Your task to perform on an android device: turn smart compose on in the gmail app Image 0: 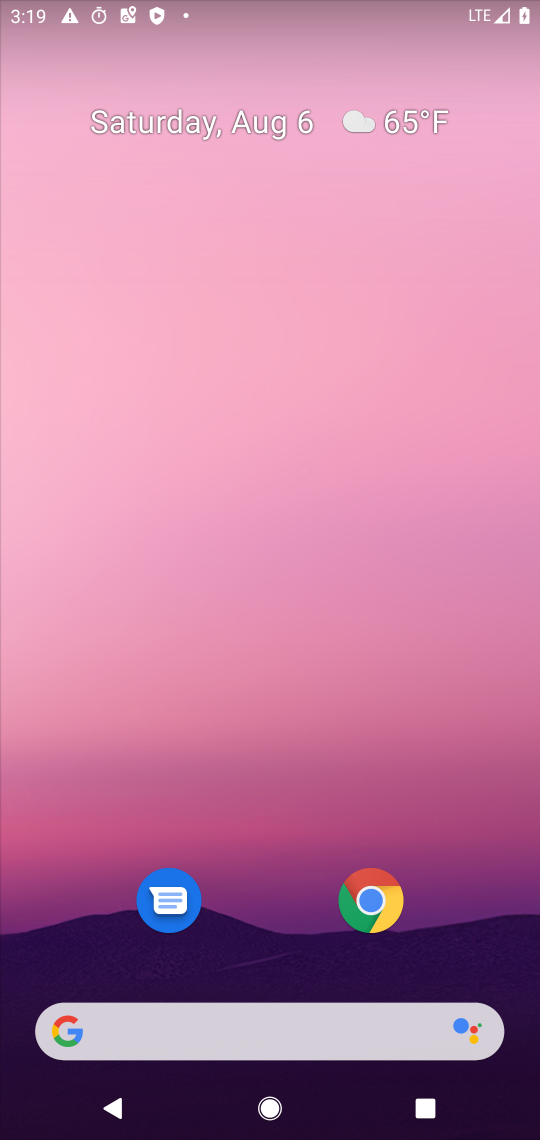
Step 0: press home button
Your task to perform on an android device: turn smart compose on in the gmail app Image 1: 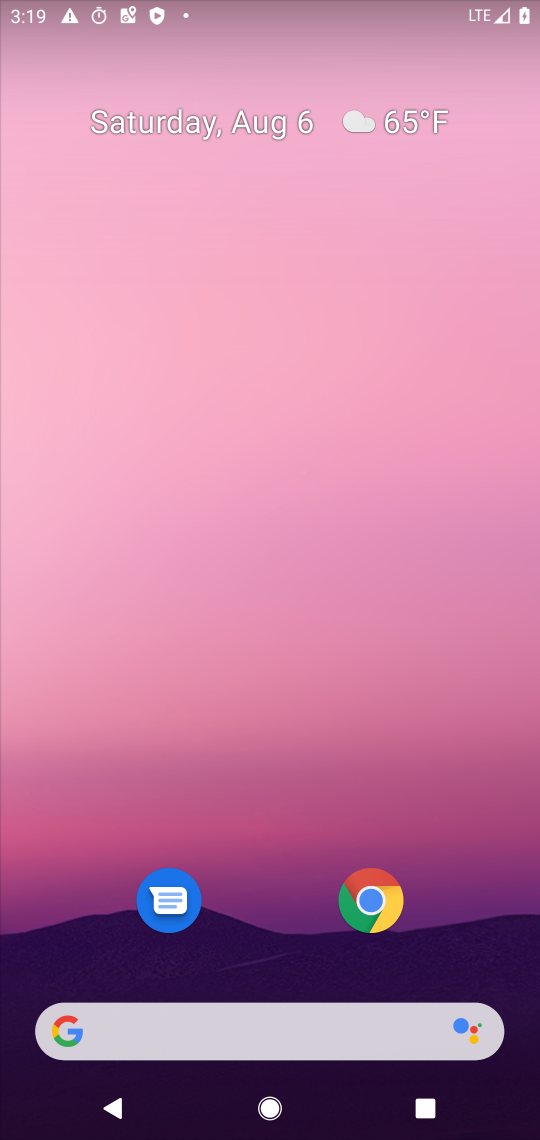
Step 1: press home button
Your task to perform on an android device: turn smart compose on in the gmail app Image 2: 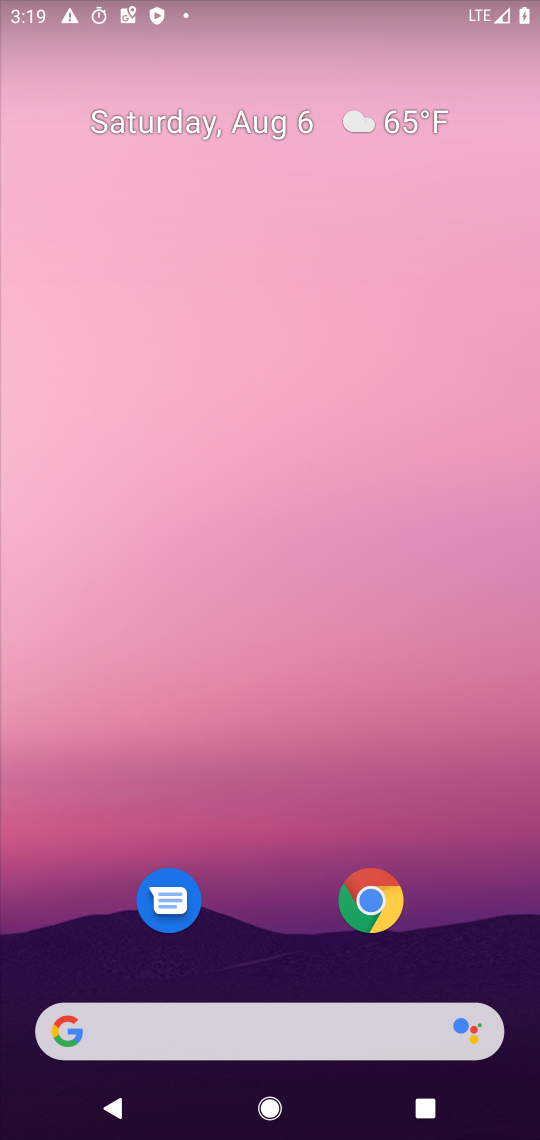
Step 2: drag from (236, 931) to (116, 54)
Your task to perform on an android device: turn smart compose on in the gmail app Image 3: 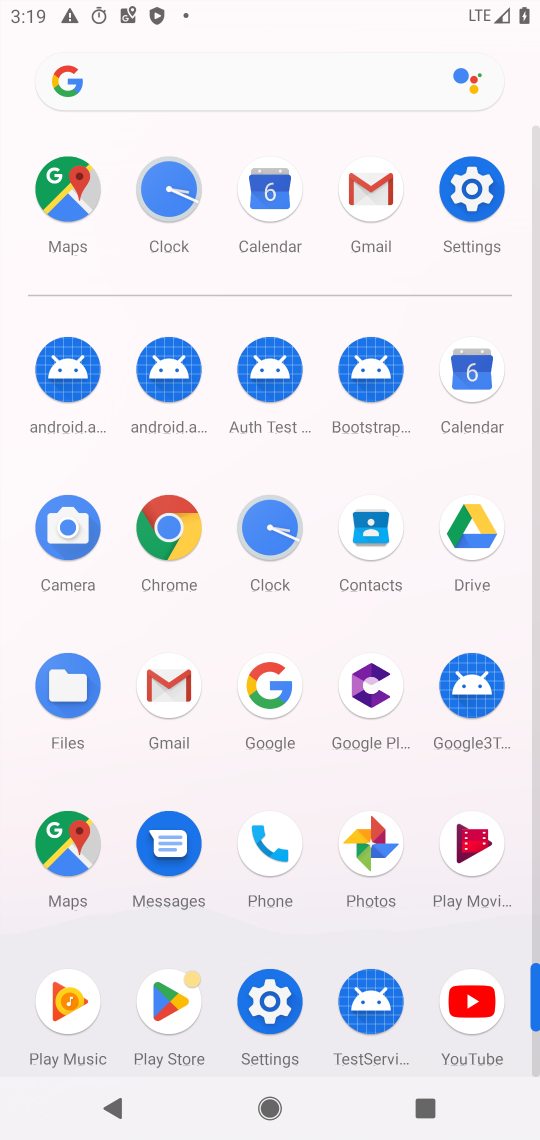
Step 3: click (382, 191)
Your task to perform on an android device: turn smart compose on in the gmail app Image 4: 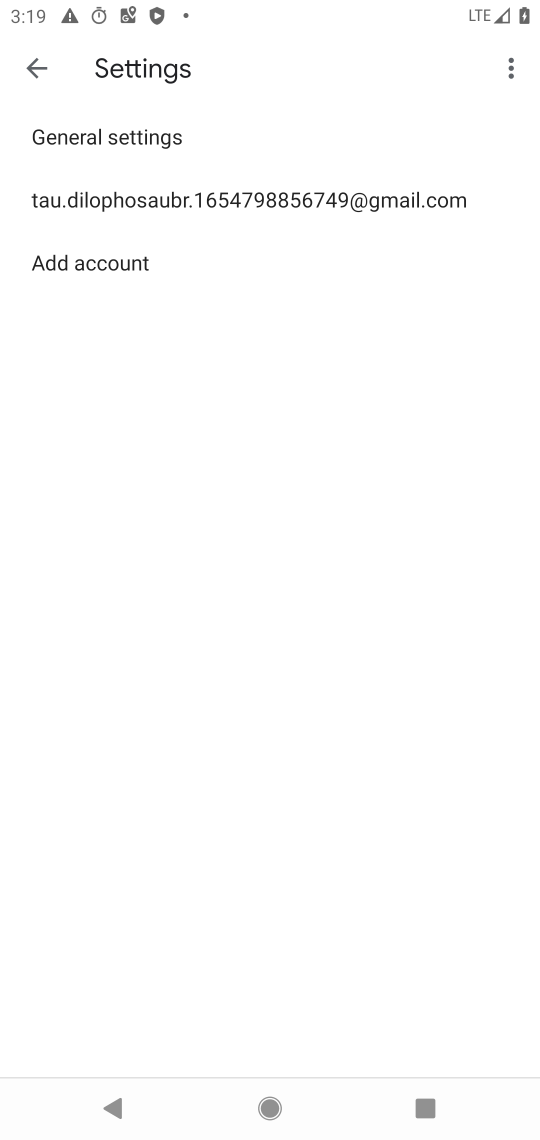
Step 4: click (365, 195)
Your task to perform on an android device: turn smart compose on in the gmail app Image 5: 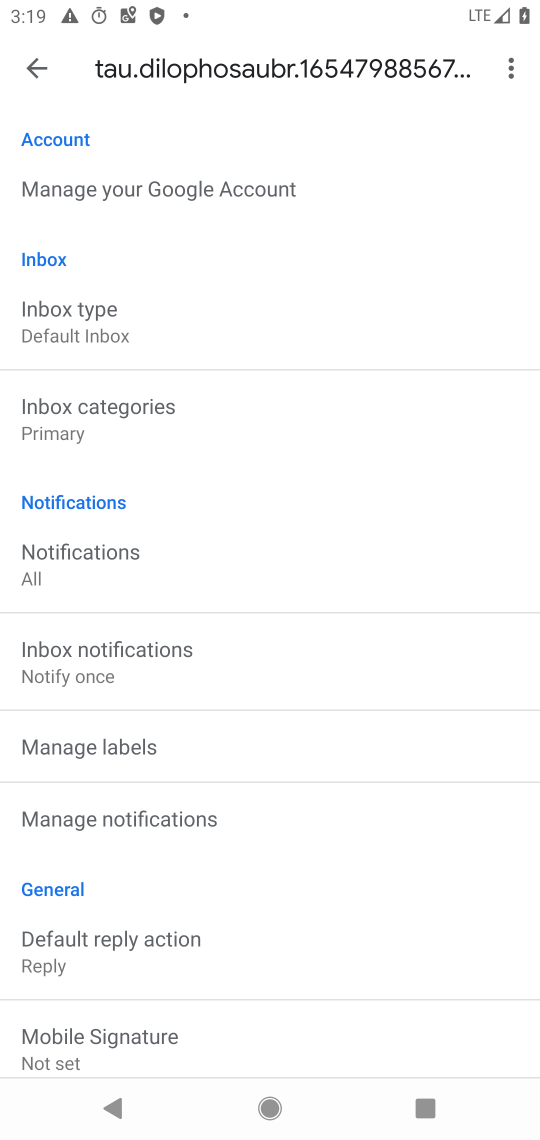
Step 5: task complete